Your task to perform on an android device: See recent photos Image 0: 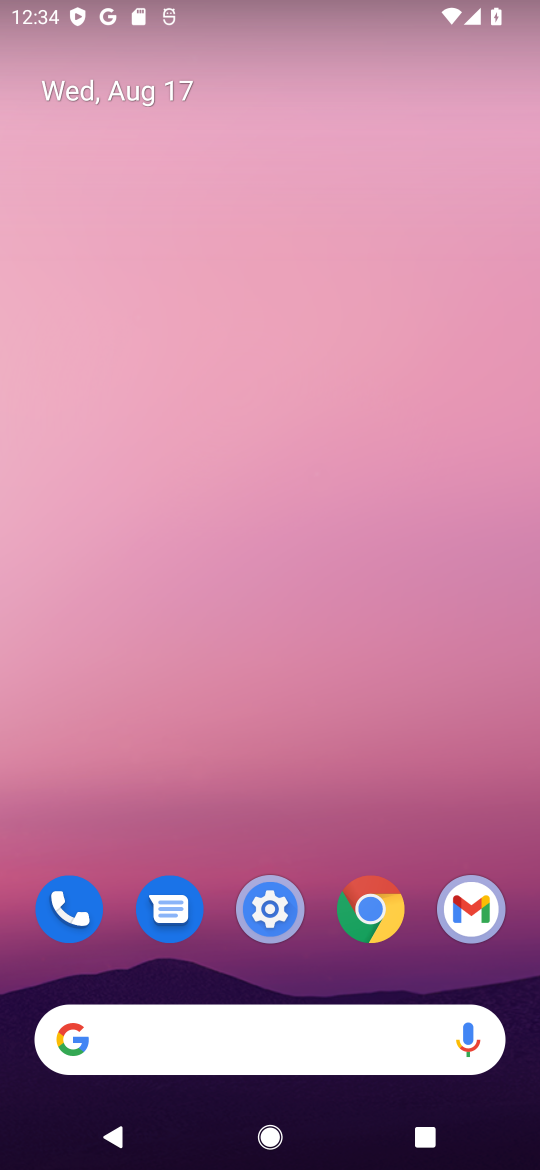
Step 0: drag from (349, 807) to (322, 157)
Your task to perform on an android device: See recent photos Image 1: 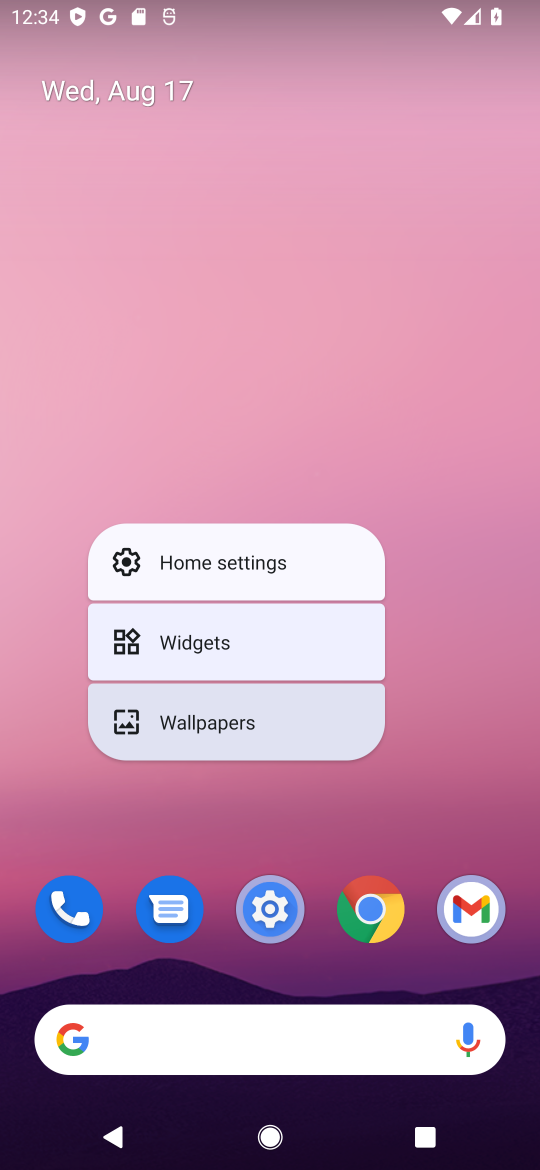
Step 1: click (380, 341)
Your task to perform on an android device: See recent photos Image 2: 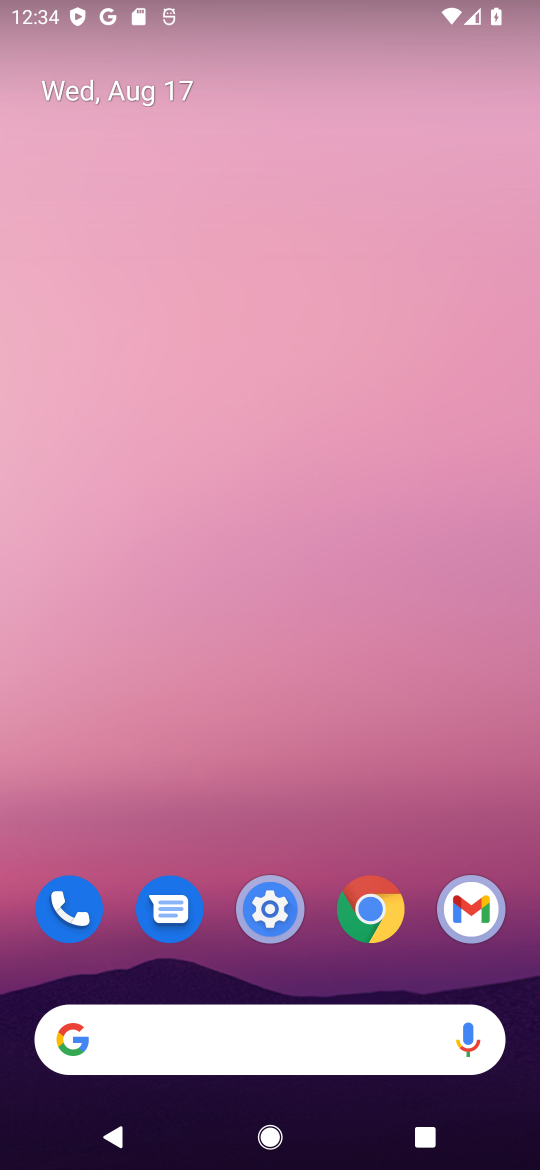
Step 2: drag from (328, 828) to (241, 89)
Your task to perform on an android device: See recent photos Image 3: 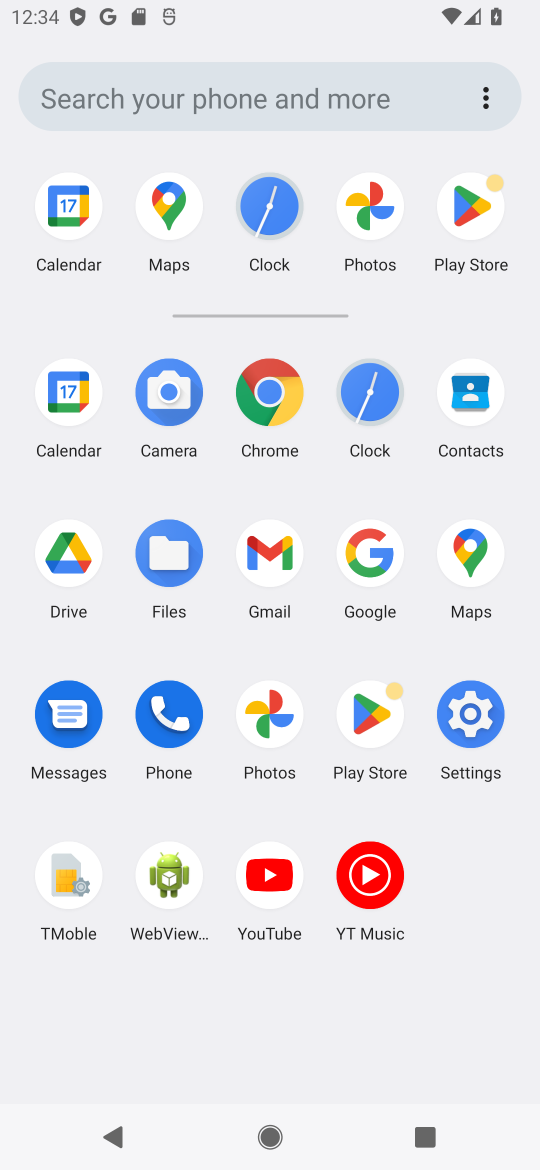
Step 3: click (369, 205)
Your task to perform on an android device: See recent photos Image 4: 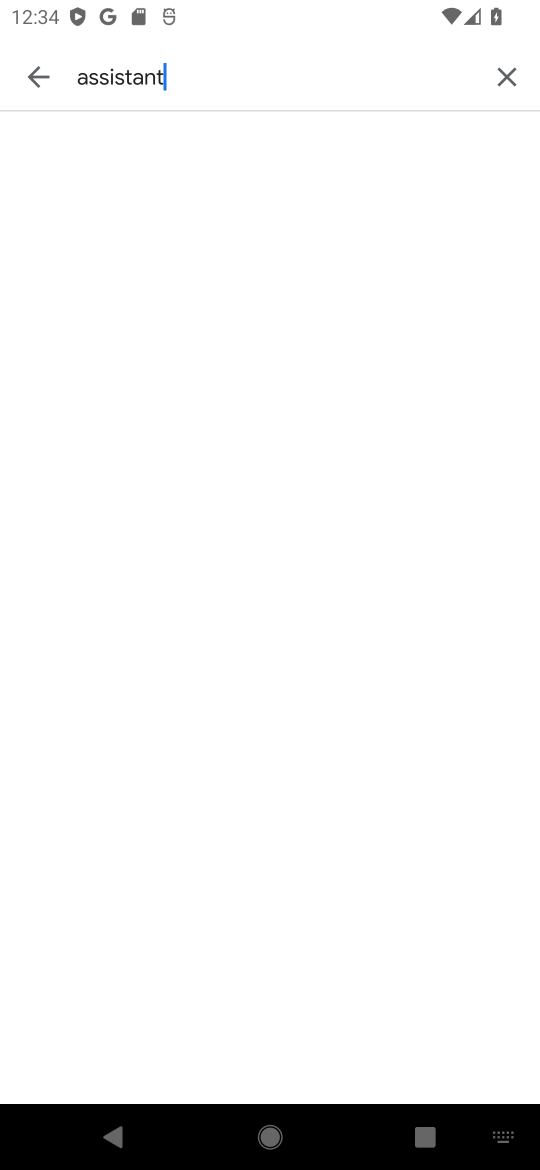
Step 4: click (45, 80)
Your task to perform on an android device: See recent photos Image 5: 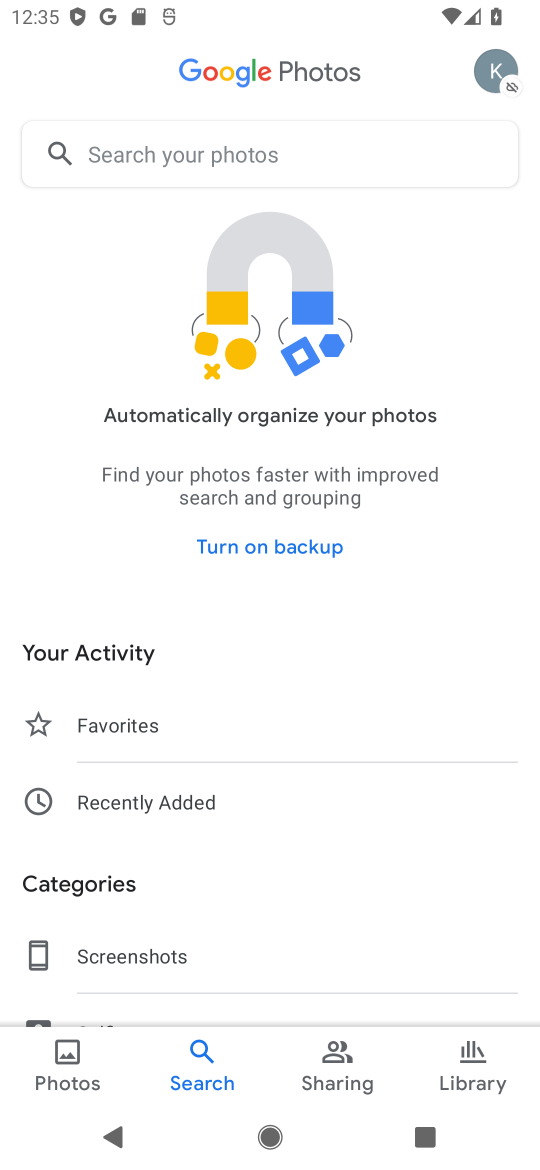
Step 5: click (65, 1045)
Your task to perform on an android device: See recent photos Image 6: 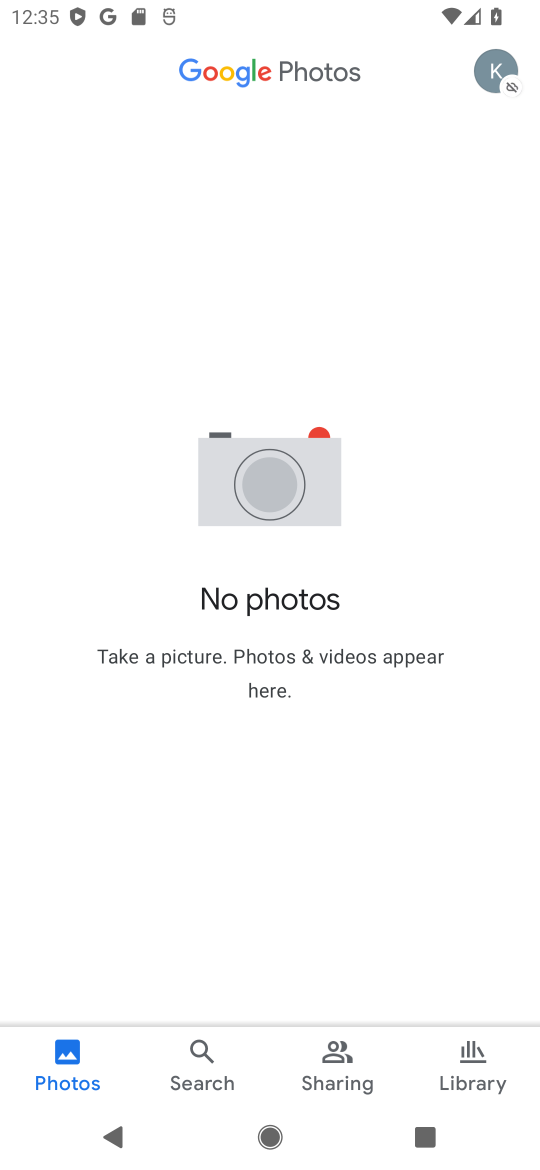
Step 6: task complete